Your task to perform on an android device: Do I have any events today? Image 0: 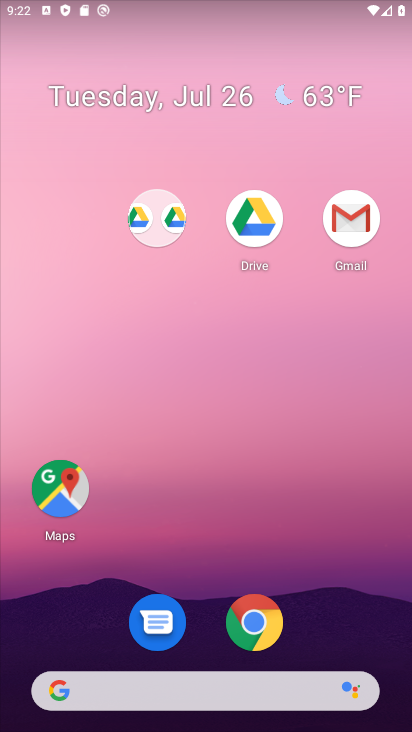
Step 0: task complete